Your task to perform on an android device: Search for Mexican restaurants on Maps Image 0: 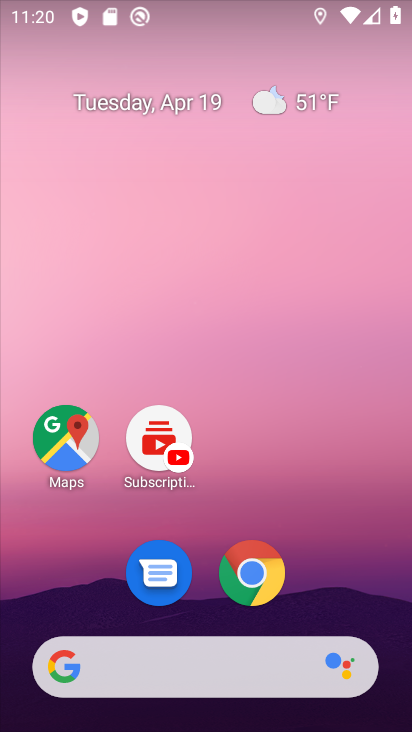
Step 0: click (34, 460)
Your task to perform on an android device: Search for Mexican restaurants on Maps Image 1: 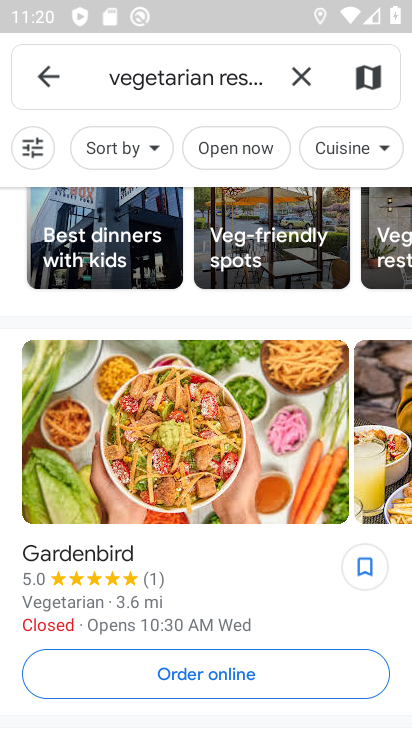
Step 1: click (286, 77)
Your task to perform on an android device: Search for Mexican restaurants on Maps Image 2: 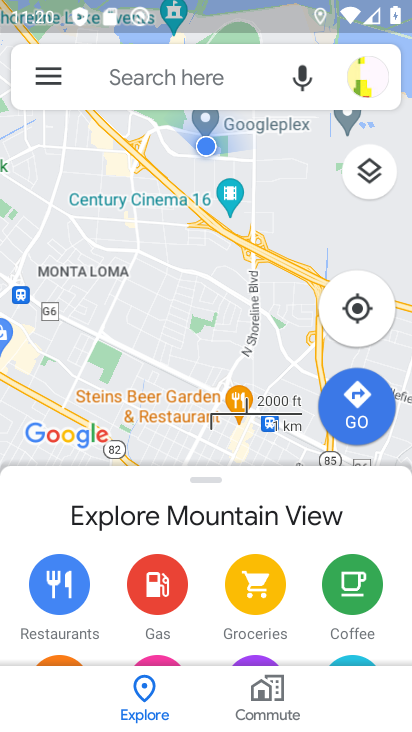
Step 2: click (186, 88)
Your task to perform on an android device: Search for Mexican restaurants on Maps Image 3: 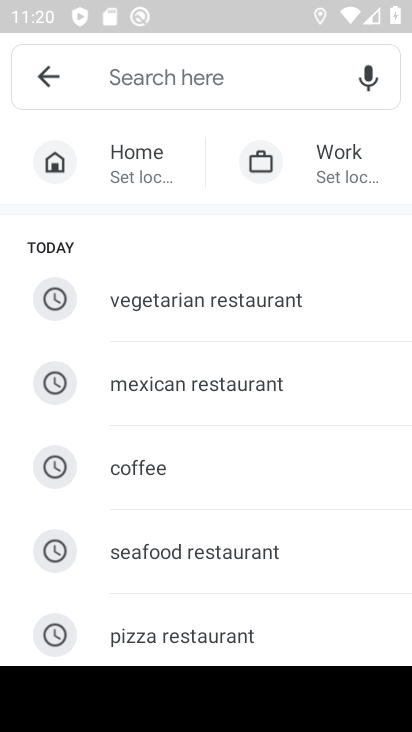
Step 3: click (179, 389)
Your task to perform on an android device: Search for Mexican restaurants on Maps Image 4: 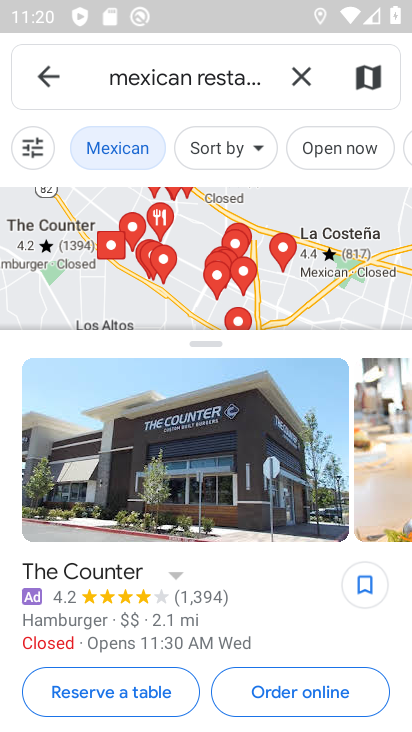
Step 4: task complete